Your task to perform on an android device: turn notification dots on Image 0: 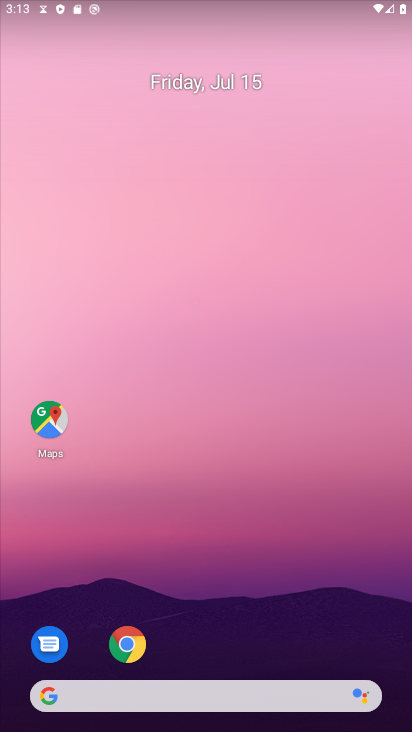
Step 0: drag from (250, 707) to (257, 35)
Your task to perform on an android device: turn notification dots on Image 1: 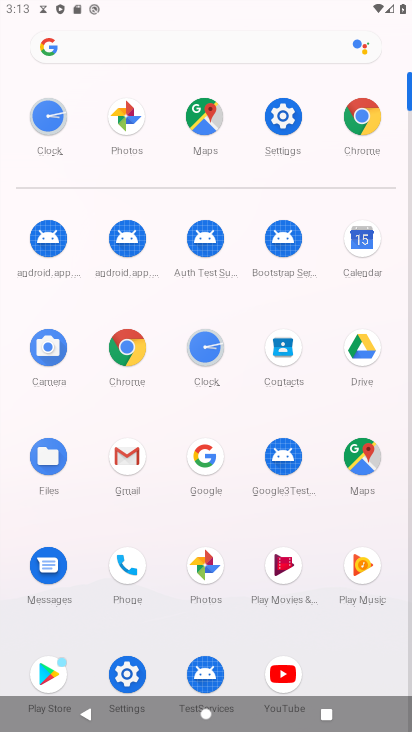
Step 1: click (297, 118)
Your task to perform on an android device: turn notification dots on Image 2: 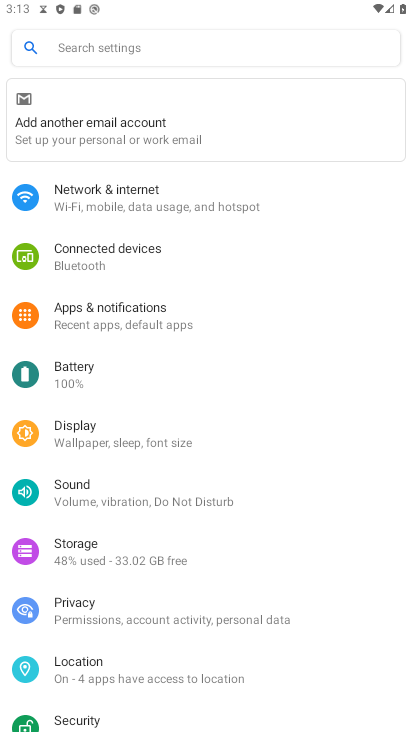
Step 2: click (172, 323)
Your task to perform on an android device: turn notification dots on Image 3: 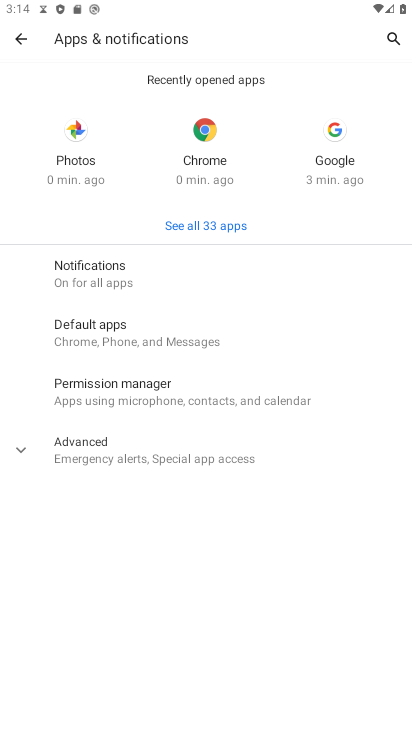
Step 3: click (124, 278)
Your task to perform on an android device: turn notification dots on Image 4: 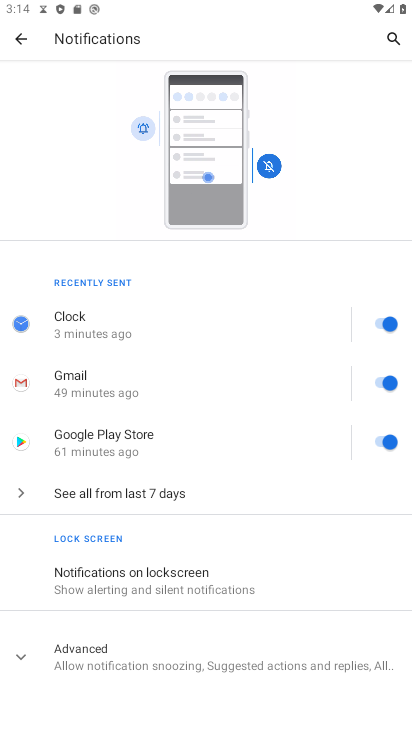
Step 4: click (148, 638)
Your task to perform on an android device: turn notification dots on Image 5: 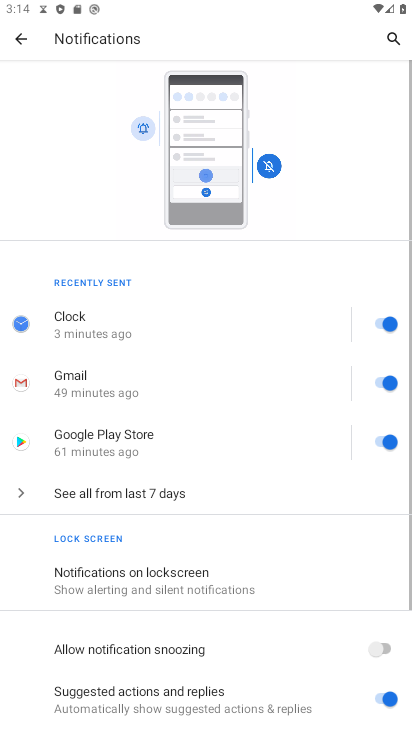
Step 5: task complete